Your task to perform on an android device: turn off location history Image 0: 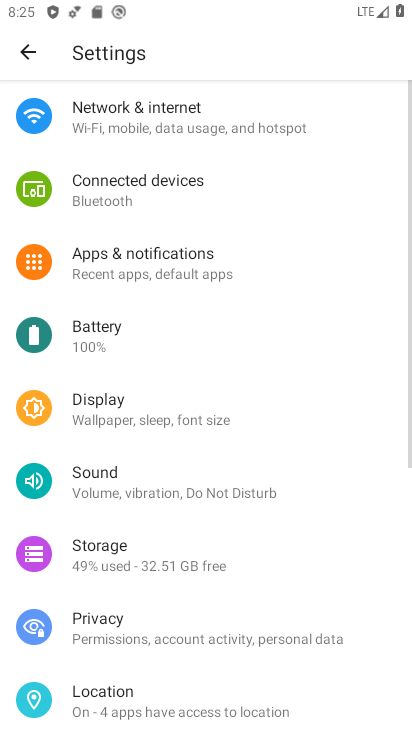
Step 0: click (104, 689)
Your task to perform on an android device: turn off location history Image 1: 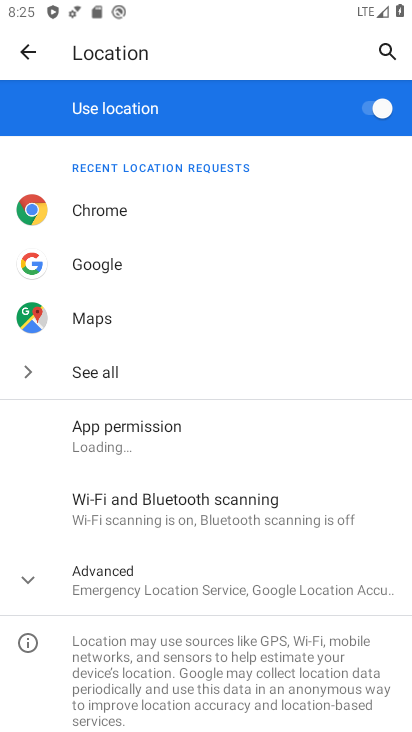
Step 1: click (151, 581)
Your task to perform on an android device: turn off location history Image 2: 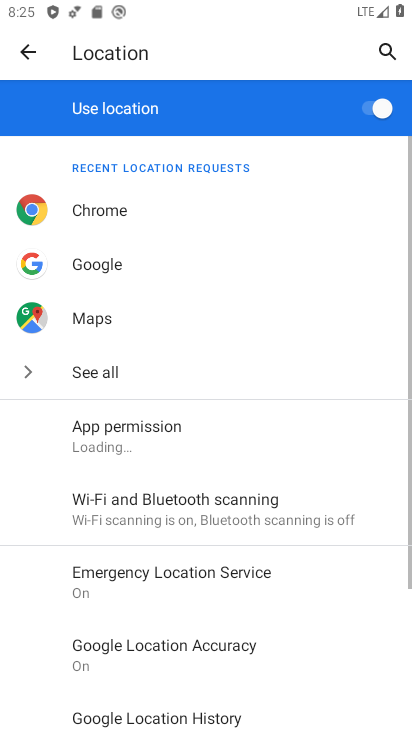
Step 2: drag from (232, 612) to (237, 317)
Your task to perform on an android device: turn off location history Image 3: 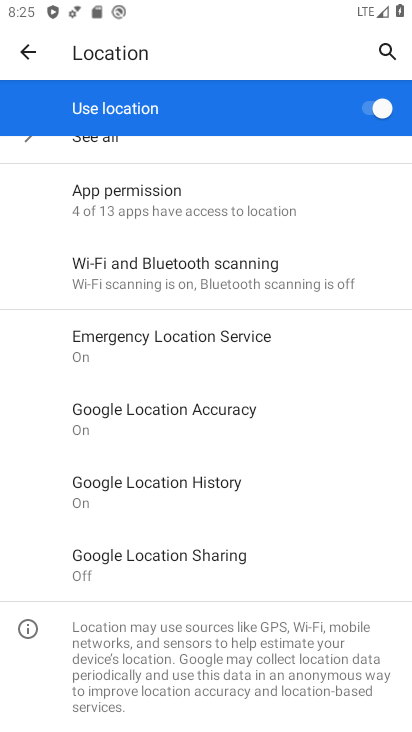
Step 3: click (199, 484)
Your task to perform on an android device: turn off location history Image 4: 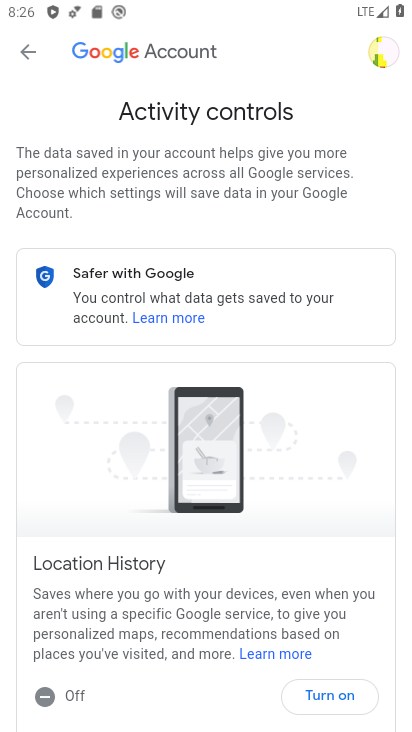
Step 4: task complete